Your task to perform on an android device: What is the recent news? Image 0: 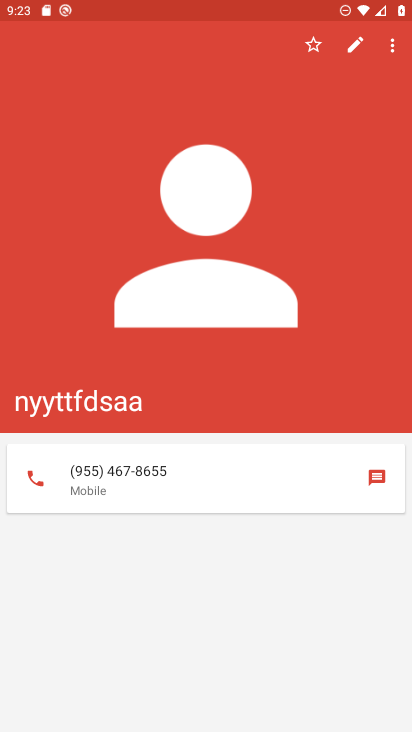
Step 0: press home button
Your task to perform on an android device: What is the recent news? Image 1: 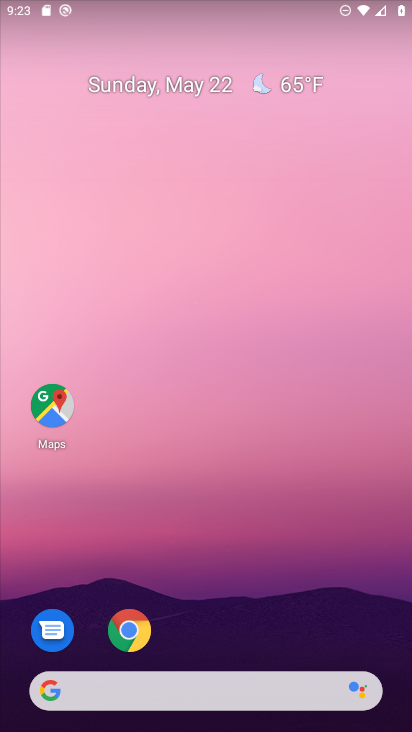
Step 1: click (56, 691)
Your task to perform on an android device: What is the recent news? Image 2: 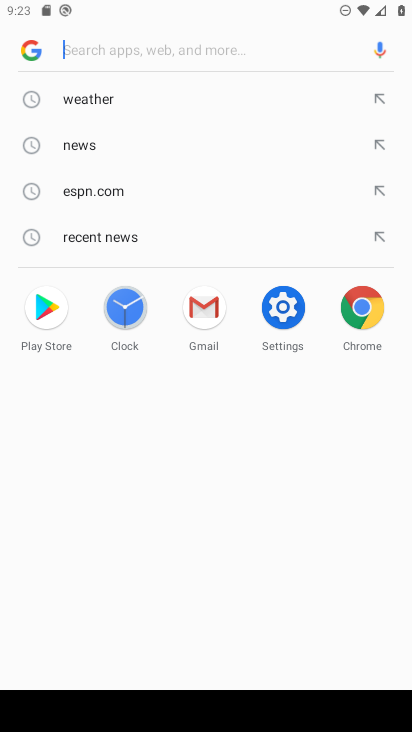
Step 2: click (95, 143)
Your task to perform on an android device: What is the recent news? Image 3: 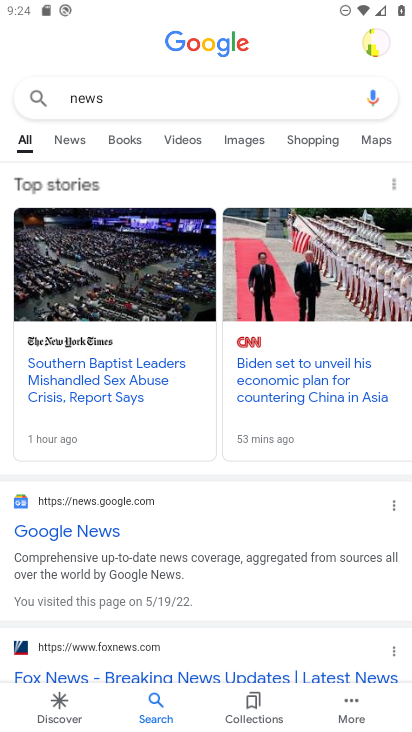
Step 3: click (77, 144)
Your task to perform on an android device: What is the recent news? Image 4: 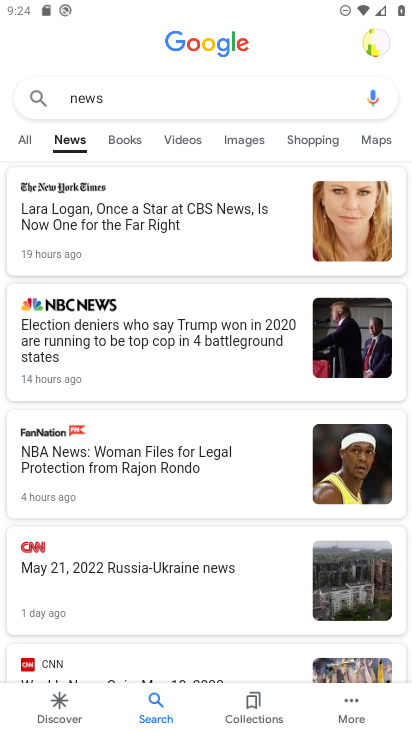
Step 4: task complete